Your task to perform on an android device: check storage Image 0: 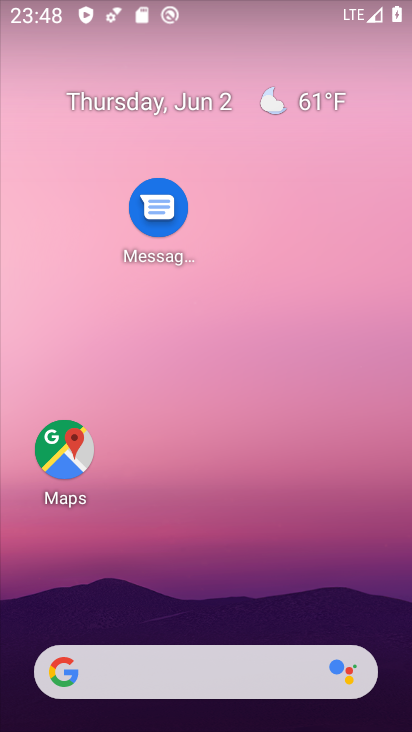
Step 0: drag from (203, 642) to (229, 0)
Your task to perform on an android device: check storage Image 1: 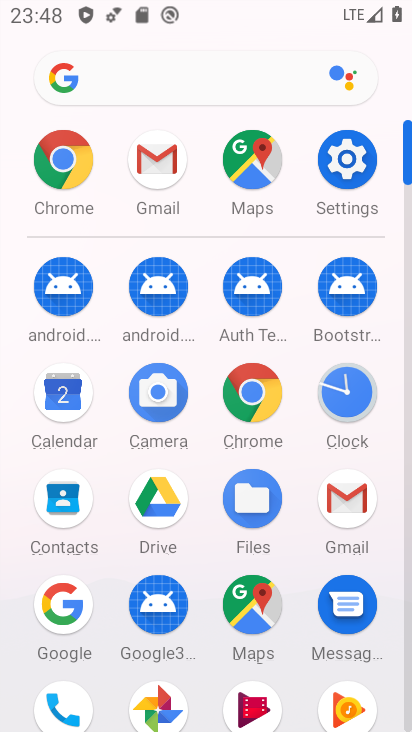
Step 1: click (364, 163)
Your task to perform on an android device: check storage Image 2: 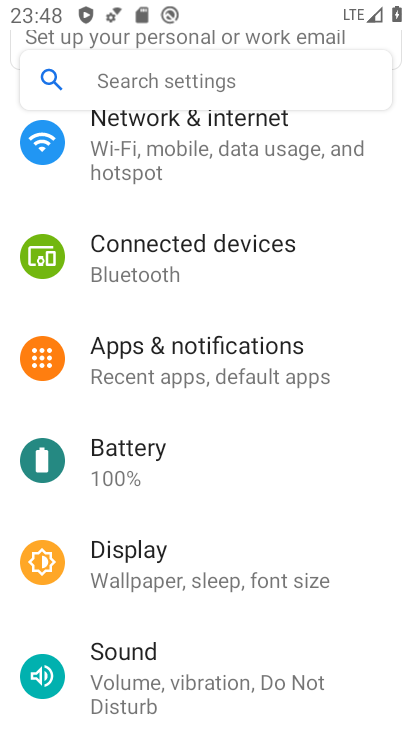
Step 2: drag from (217, 666) to (204, 0)
Your task to perform on an android device: check storage Image 3: 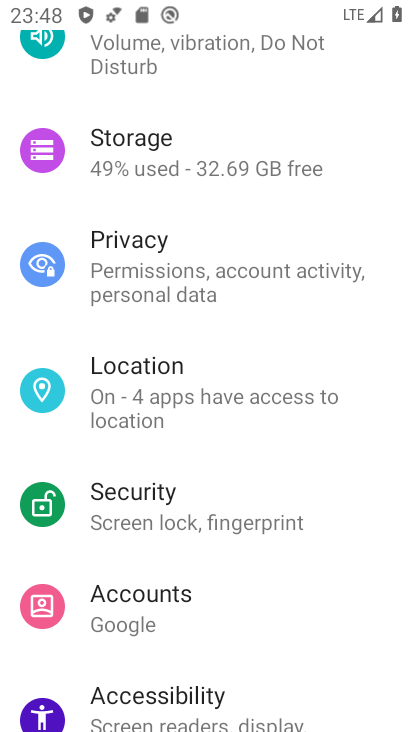
Step 3: click (144, 166)
Your task to perform on an android device: check storage Image 4: 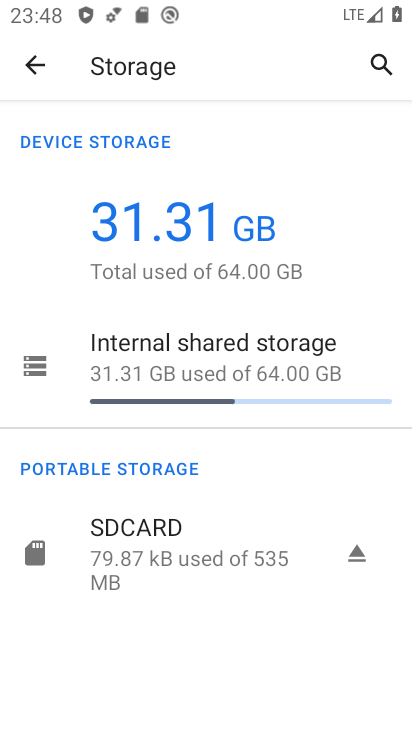
Step 4: task complete